Your task to perform on an android device: When is my next meeting? Image 0: 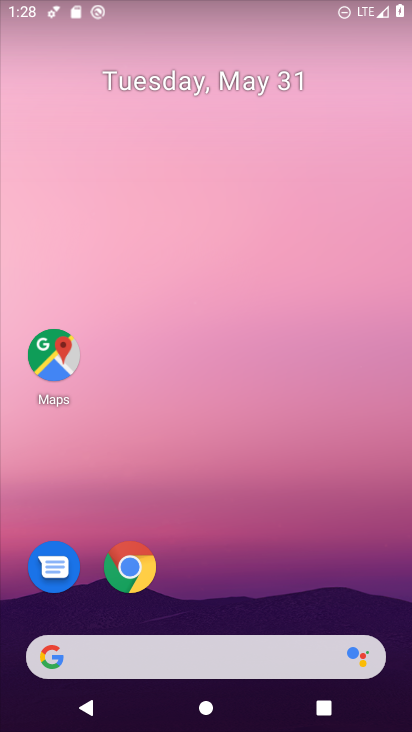
Step 0: drag from (204, 576) to (183, 193)
Your task to perform on an android device: When is my next meeting? Image 1: 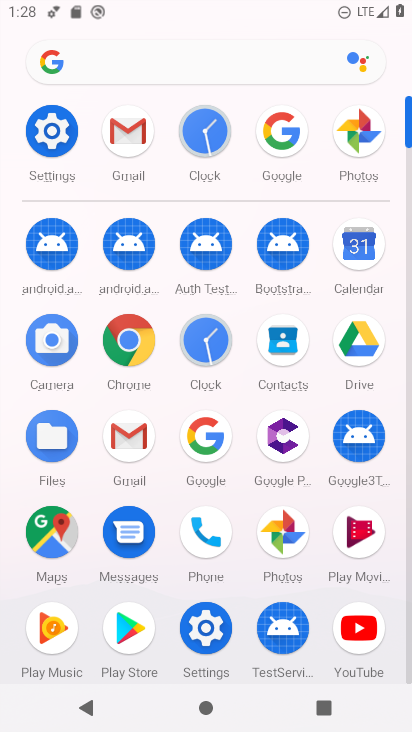
Step 1: click (349, 261)
Your task to perform on an android device: When is my next meeting? Image 2: 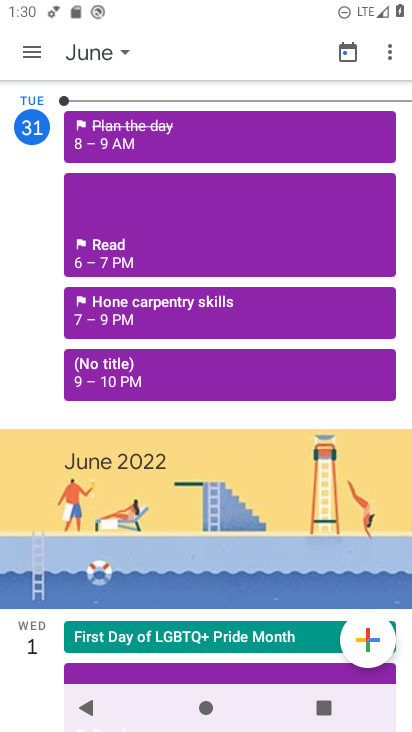
Step 2: click (122, 36)
Your task to perform on an android device: When is my next meeting? Image 3: 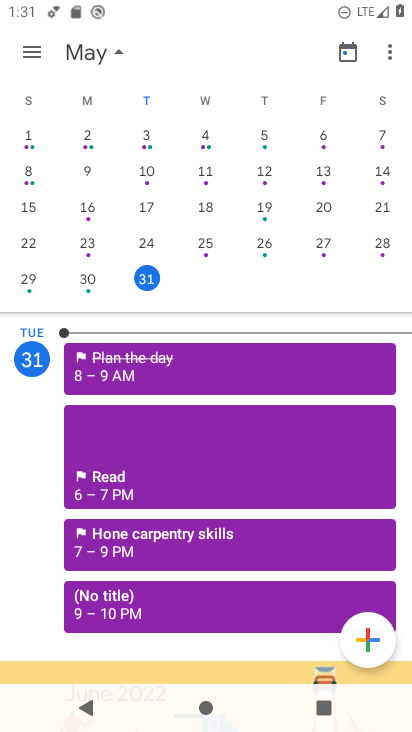
Step 3: task complete